Your task to perform on an android device: toggle data saver in the chrome app Image 0: 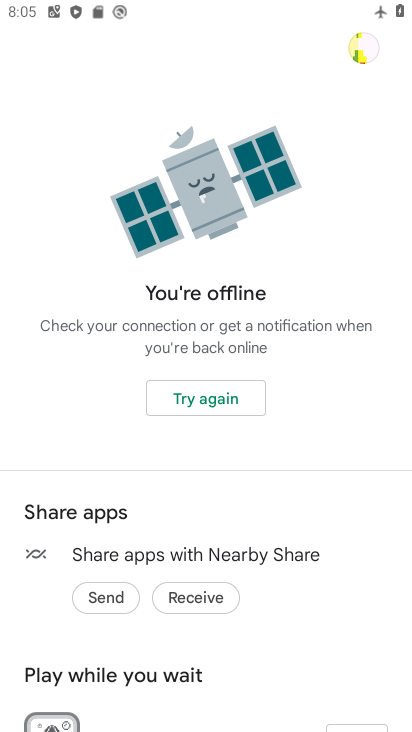
Step 0: press home button
Your task to perform on an android device: toggle data saver in the chrome app Image 1: 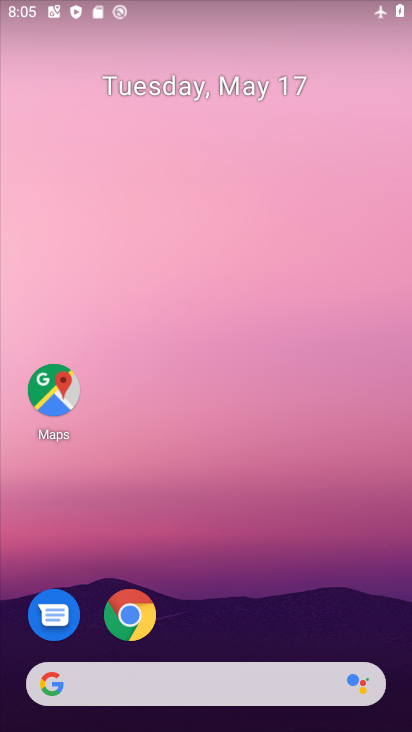
Step 1: click (152, 608)
Your task to perform on an android device: toggle data saver in the chrome app Image 2: 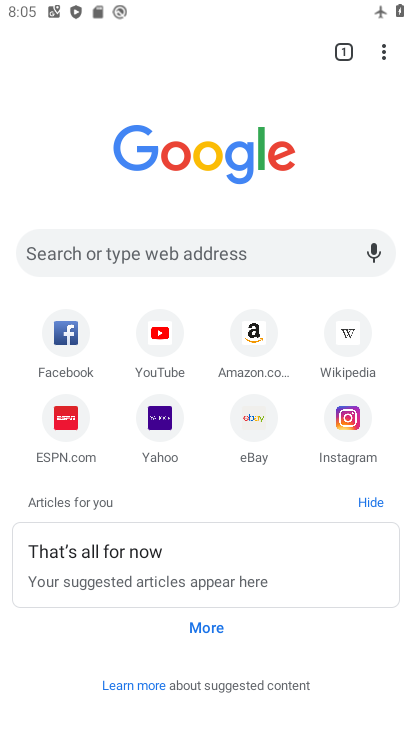
Step 2: click (386, 53)
Your task to perform on an android device: toggle data saver in the chrome app Image 3: 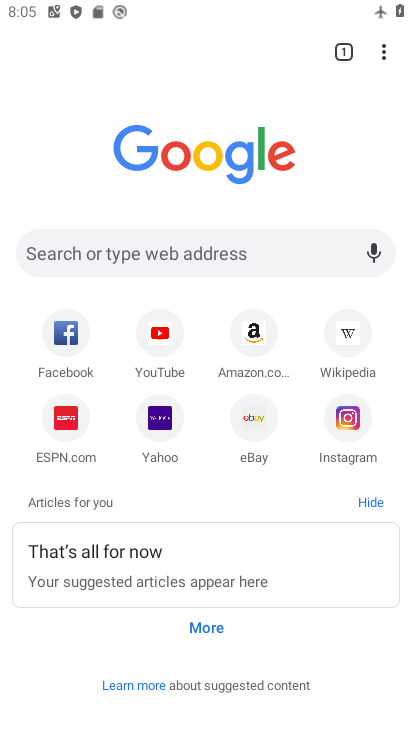
Step 3: click (388, 52)
Your task to perform on an android device: toggle data saver in the chrome app Image 4: 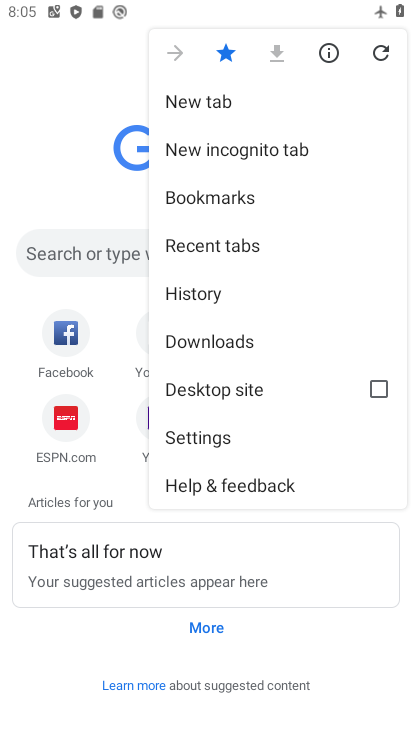
Step 4: click (224, 439)
Your task to perform on an android device: toggle data saver in the chrome app Image 5: 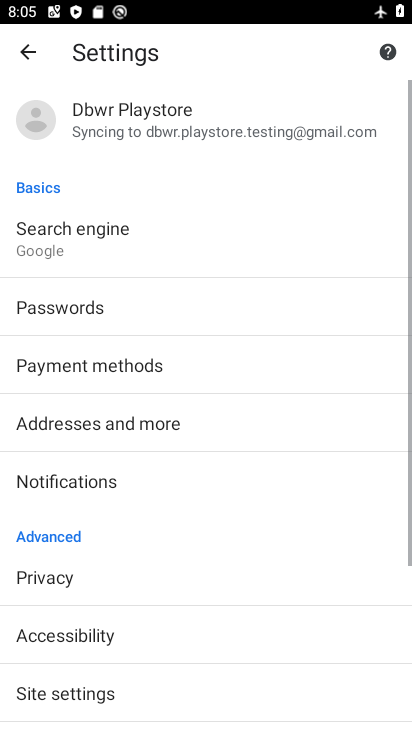
Step 5: drag from (139, 642) to (221, 241)
Your task to perform on an android device: toggle data saver in the chrome app Image 6: 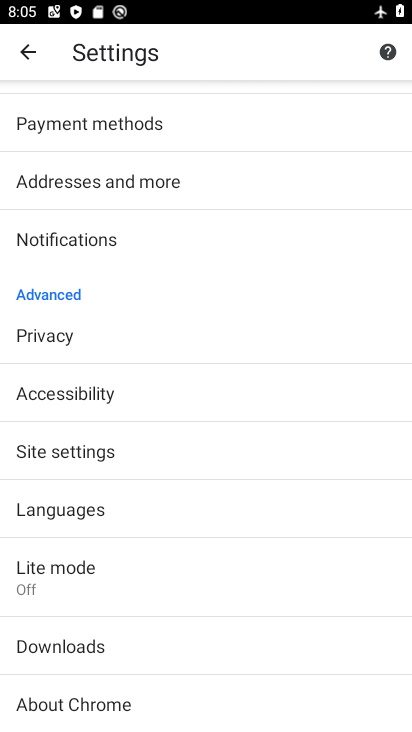
Step 6: click (138, 580)
Your task to perform on an android device: toggle data saver in the chrome app Image 7: 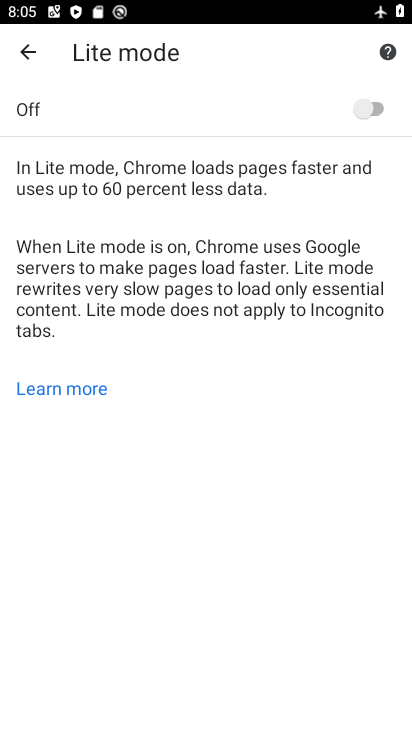
Step 7: click (366, 97)
Your task to perform on an android device: toggle data saver in the chrome app Image 8: 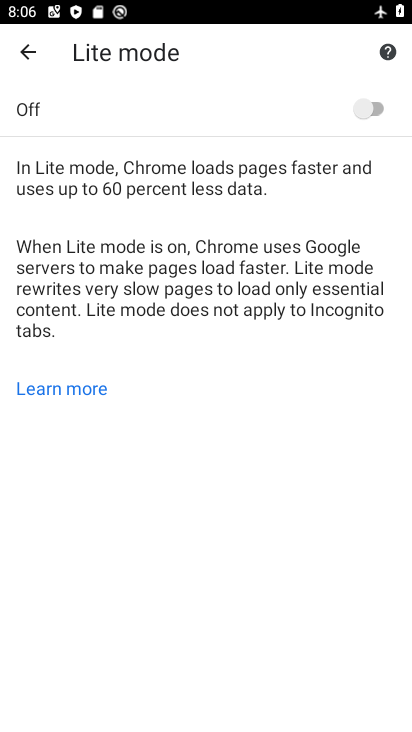
Step 8: task complete